Your task to perform on an android device: open wifi settings Image 0: 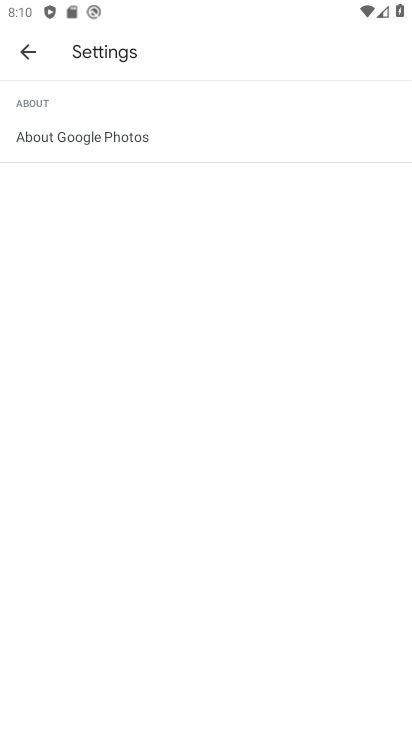
Step 0: press home button
Your task to perform on an android device: open wifi settings Image 1: 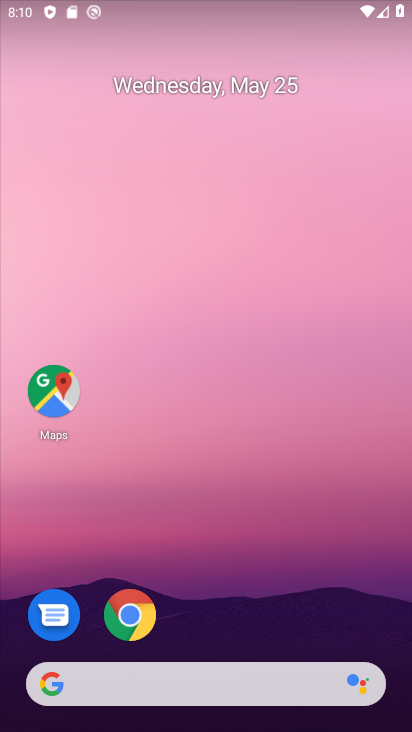
Step 1: drag from (192, 652) to (177, 251)
Your task to perform on an android device: open wifi settings Image 2: 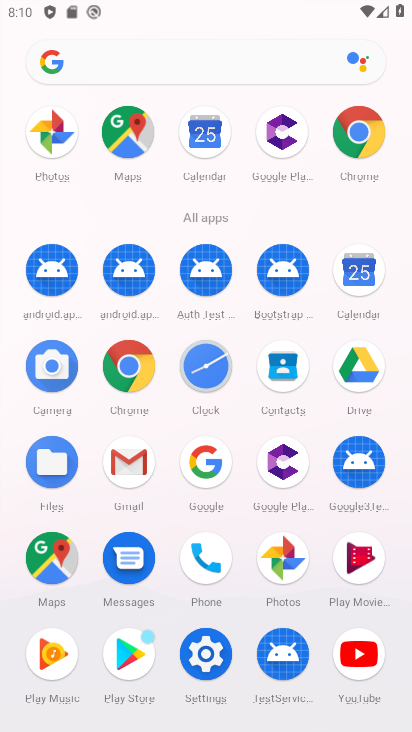
Step 2: click (203, 669)
Your task to perform on an android device: open wifi settings Image 3: 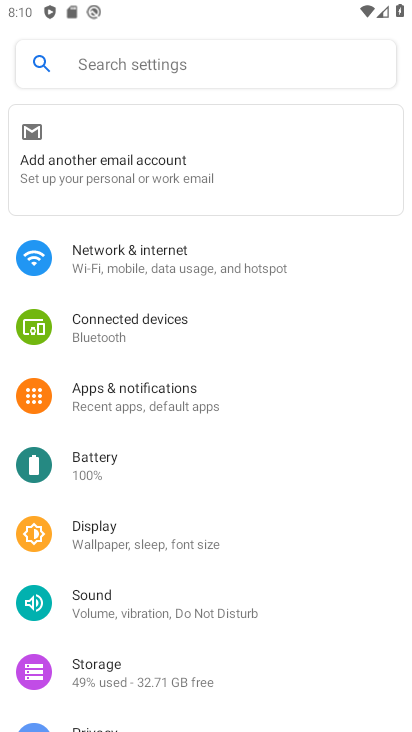
Step 3: click (170, 276)
Your task to perform on an android device: open wifi settings Image 4: 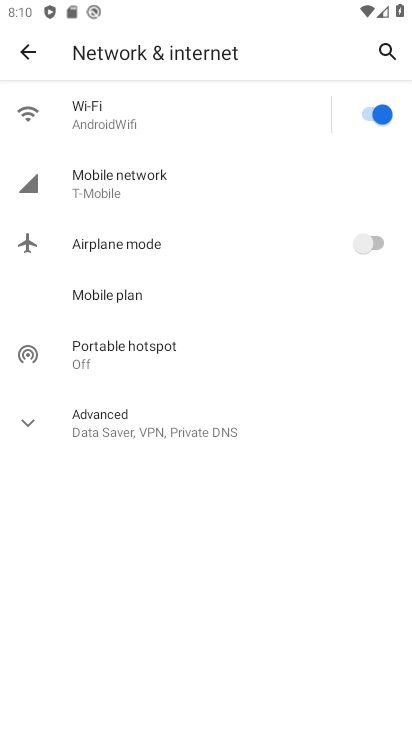
Step 4: click (90, 134)
Your task to perform on an android device: open wifi settings Image 5: 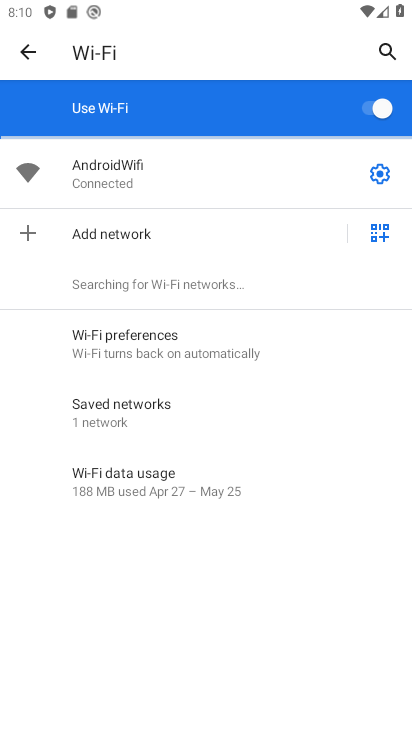
Step 5: task complete